Your task to perform on an android device: Search for razer nari on ebay, select the first entry, and add it to the cart. Image 0: 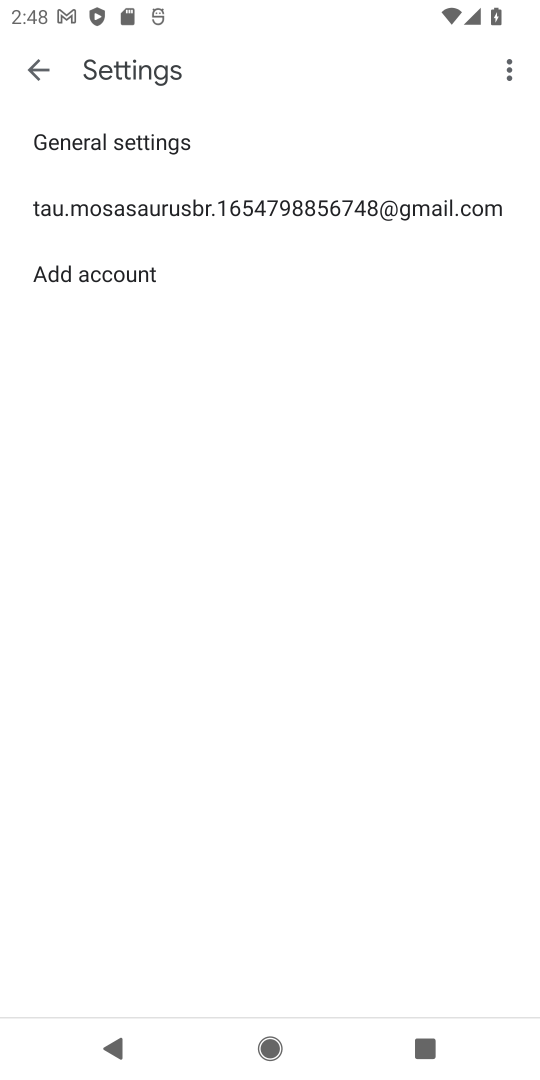
Step 0: press home button
Your task to perform on an android device: Search for razer nari on ebay, select the first entry, and add it to the cart. Image 1: 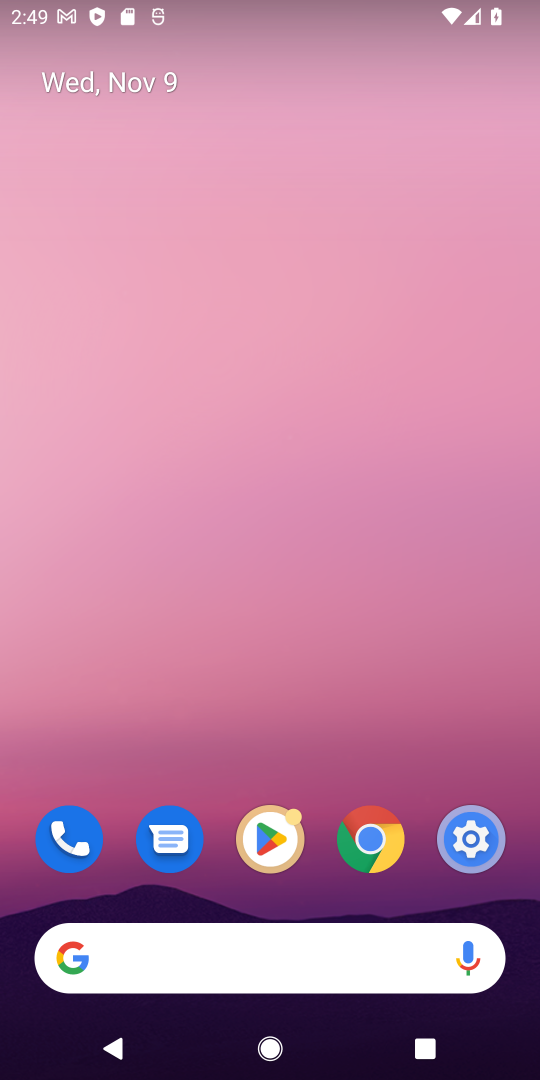
Step 1: click (316, 967)
Your task to perform on an android device: Search for razer nari on ebay, select the first entry, and add it to the cart. Image 2: 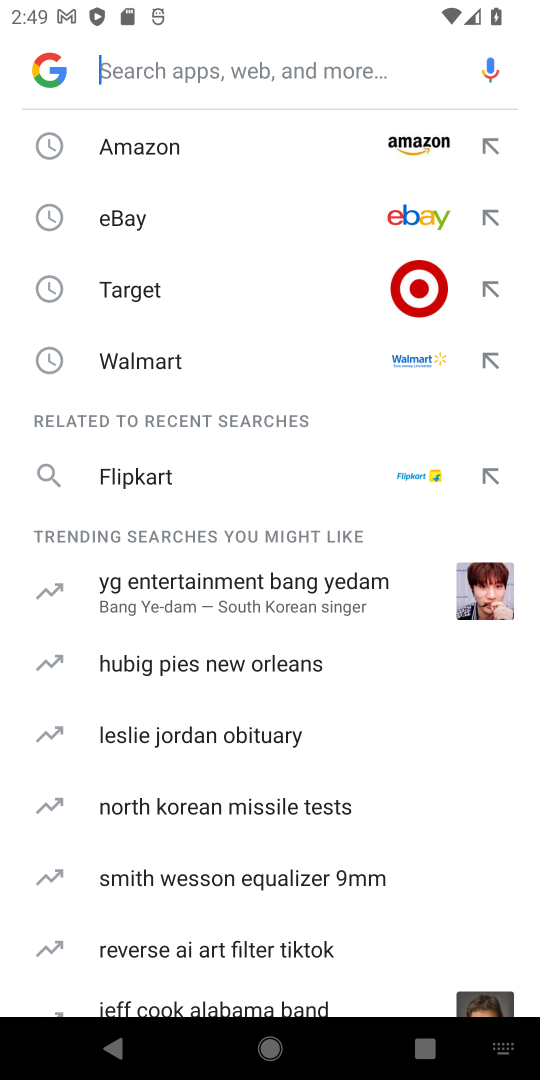
Step 2: click (120, 210)
Your task to perform on an android device: Search for razer nari on ebay, select the first entry, and add it to the cart. Image 3: 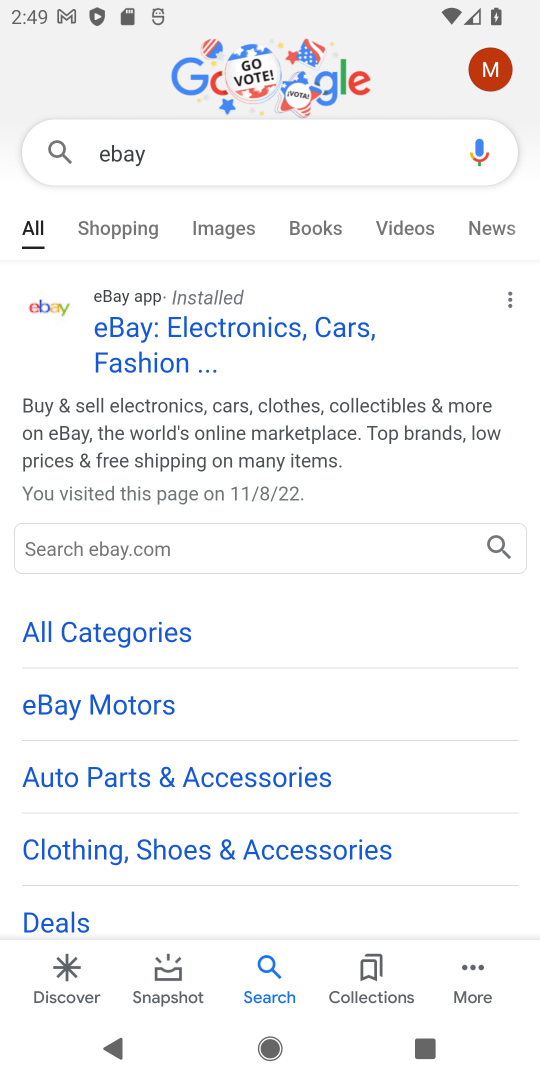
Step 3: click (107, 317)
Your task to perform on an android device: Search for razer nari on ebay, select the first entry, and add it to the cart. Image 4: 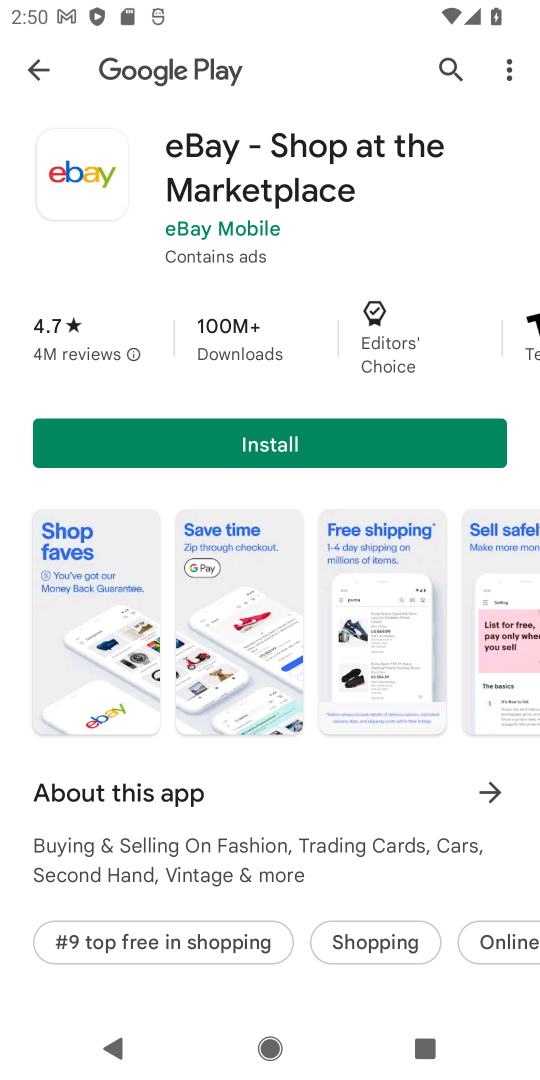
Step 4: press home button
Your task to perform on an android device: Search for razer nari on ebay, select the first entry, and add it to the cart. Image 5: 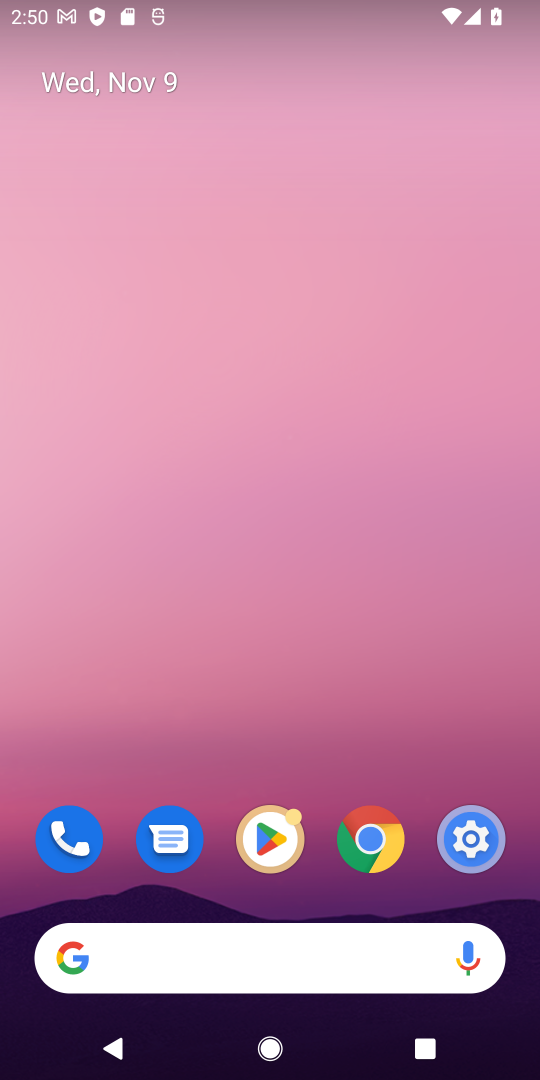
Step 5: click (296, 942)
Your task to perform on an android device: Search for razer nari on ebay, select the first entry, and add it to the cart. Image 6: 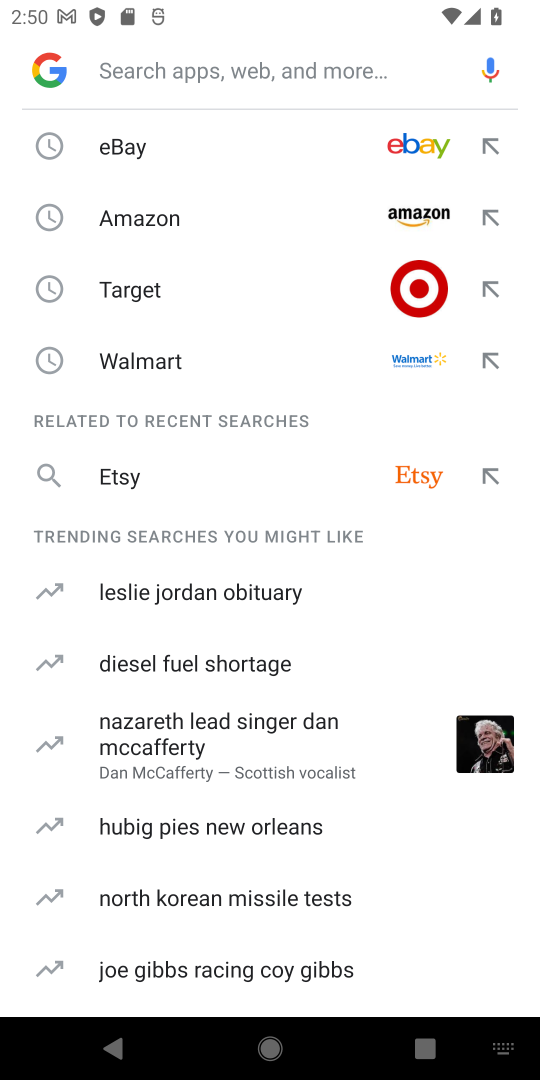
Step 6: click (222, 153)
Your task to perform on an android device: Search for razer nari on ebay, select the first entry, and add it to the cart. Image 7: 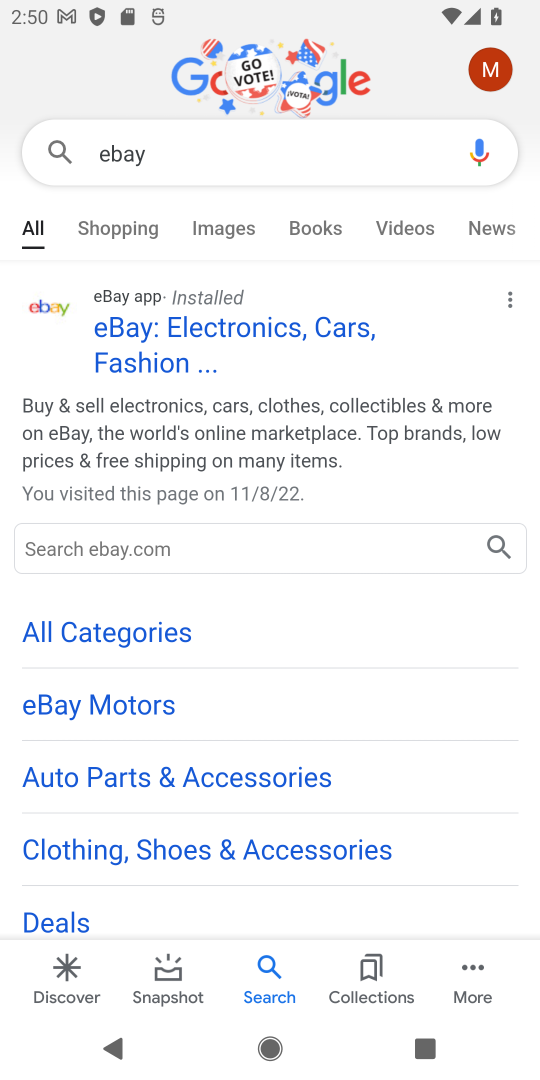
Step 7: click (253, 333)
Your task to perform on an android device: Search for razer nari on ebay, select the first entry, and add it to the cart. Image 8: 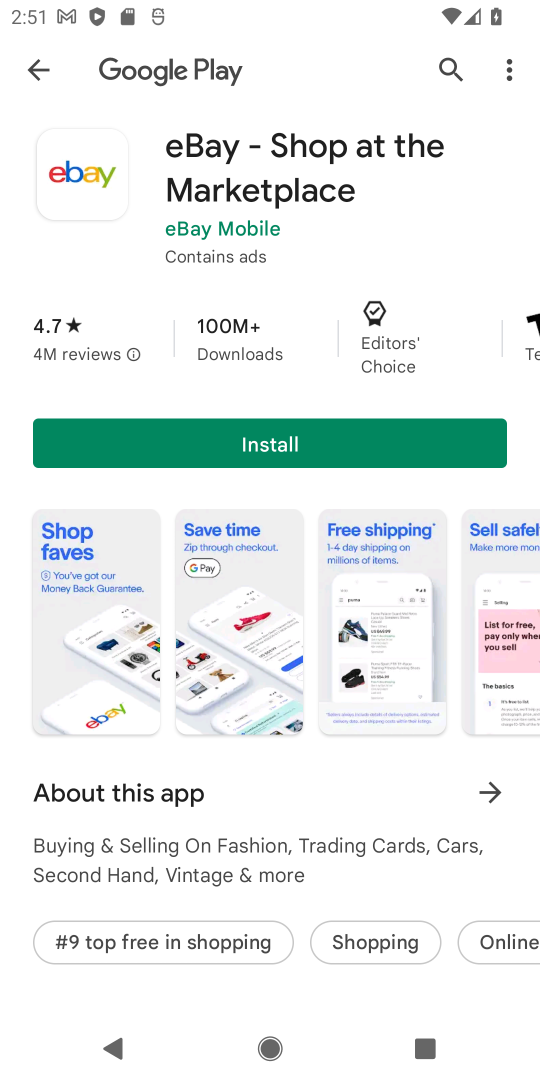
Step 8: task complete